Your task to perform on an android device: open app "HBO Max: Stream TV & Movies" (install if not already installed) Image 0: 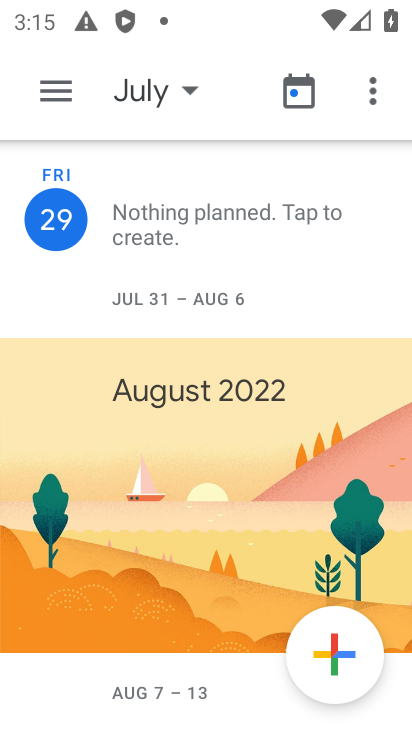
Step 0: press home button
Your task to perform on an android device: open app "HBO Max: Stream TV & Movies" (install if not already installed) Image 1: 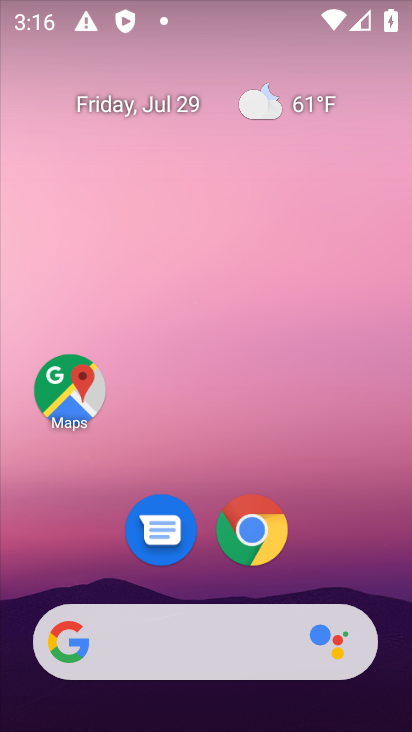
Step 1: drag from (337, 485) to (329, 57)
Your task to perform on an android device: open app "HBO Max: Stream TV & Movies" (install if not already installed) Image 2: 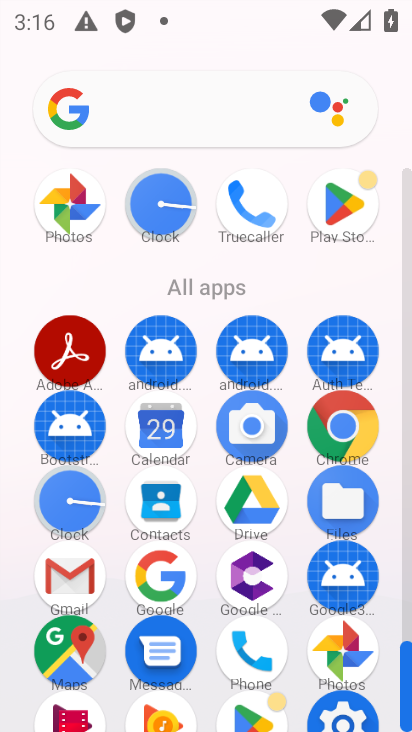
Step 2: click (333, 212)
Your task to perform on an android device: open app "HBO Max: Stream TV & Movies" (install if not already installed) Image 3: 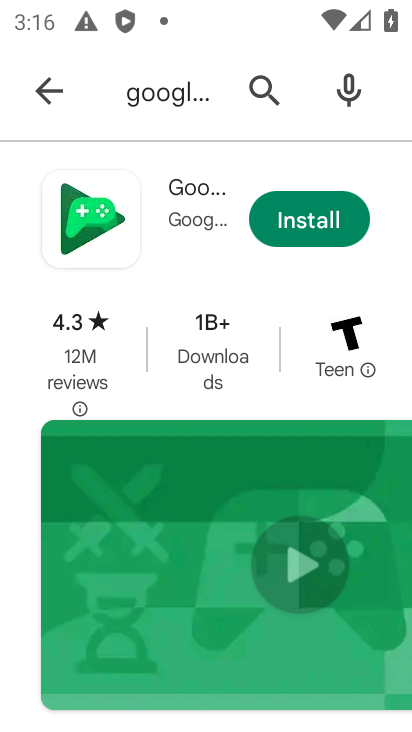
Step 3: click (273, 97)
Your task to perform on an android device: open app "HBO Max: Stream TV & Movies" (install if not already installed) Image 4: 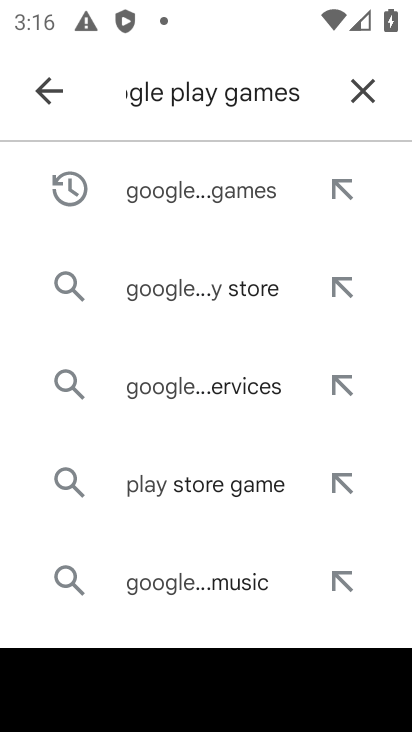
Step 4: click (377, 110)
Your task to perform on an android device: open app "HBO Max: Stream TV & Movies" (install if not already installed) Image 5: 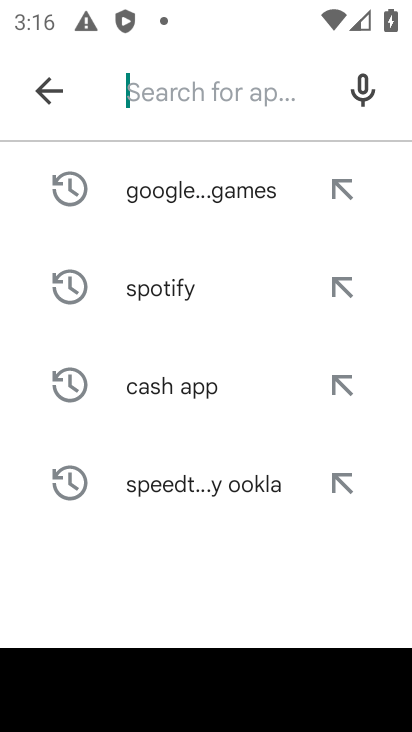
Step 5: click (246, 115)
Your task to perform on an android device: open app "HBO Max: Stream TV & Movies" (install if not already installed) Image 6: 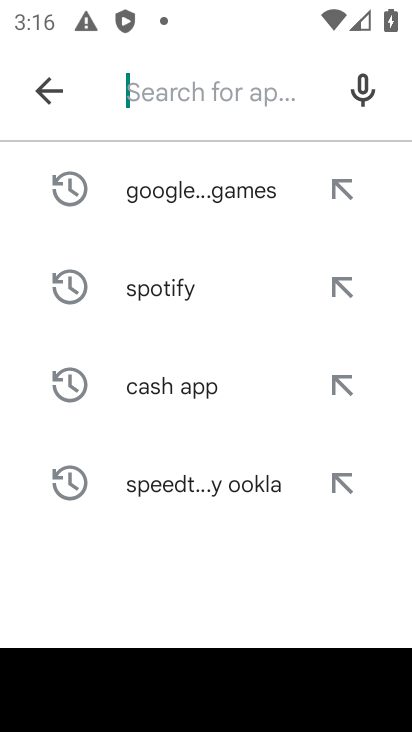
Step 6: type "HBO Max: Stream TV & Movies"
Your task to perform on an android device: open app "HBO Max: Stream TV & Movies" (install if not already installed) Image 7: 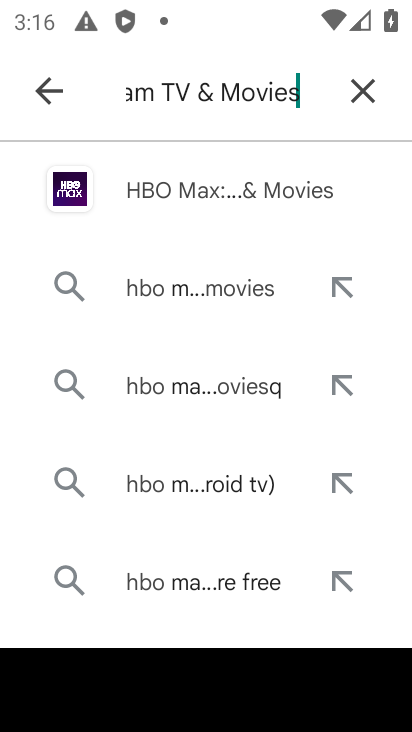
Step 7: click (153, 193)
Your task to perform on an android device: open app "HBO Max: Stream TV & Movies" (install if not already installed) Image 8: 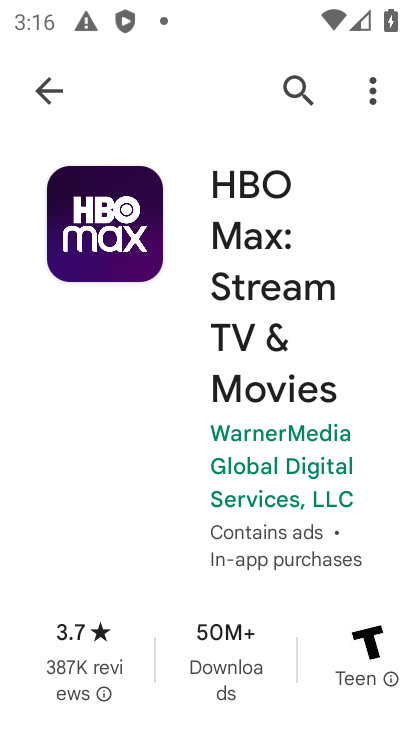
Step 8: drag from (178, 488) to (201, 288)
Your task to perform on an android device: open app "HBO Max: Stream TV & Movies" (install if not already installed) Image 9: 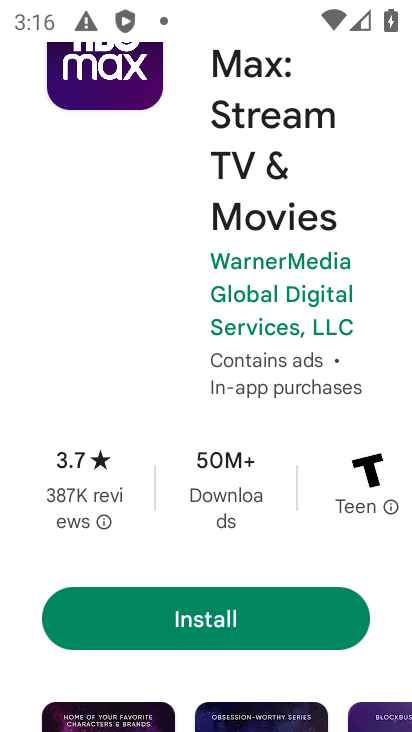
Step 9: click (185, 619)
Your task to perform on an android device: open app "HBO Max: Stream TV & Movies" (install if not already installed) Image 10: 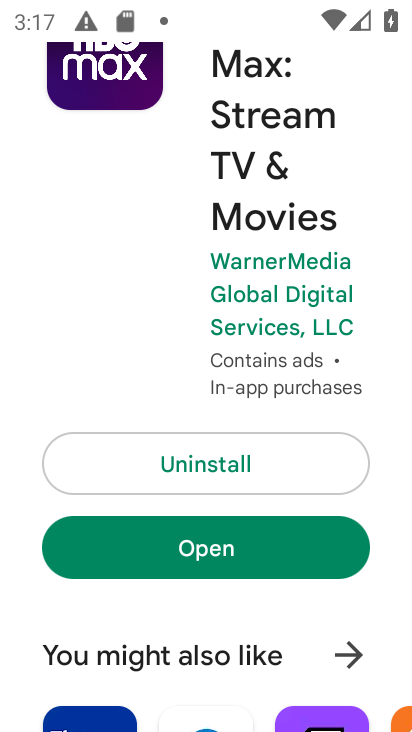
Step 10: click (237, 558)
Your task to perform on an android device: open app "HBO Max: Stream TV & Movies" (install if not already installed) Image 11: 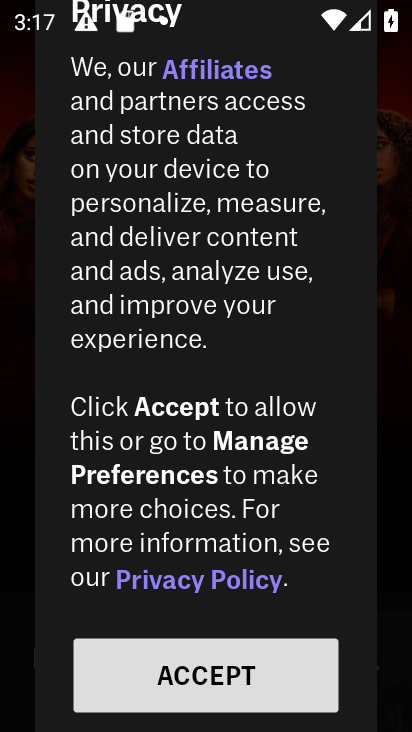
Step 11: task complete